Your task to perform on an android device: turn on improve location accuracy Image 0: 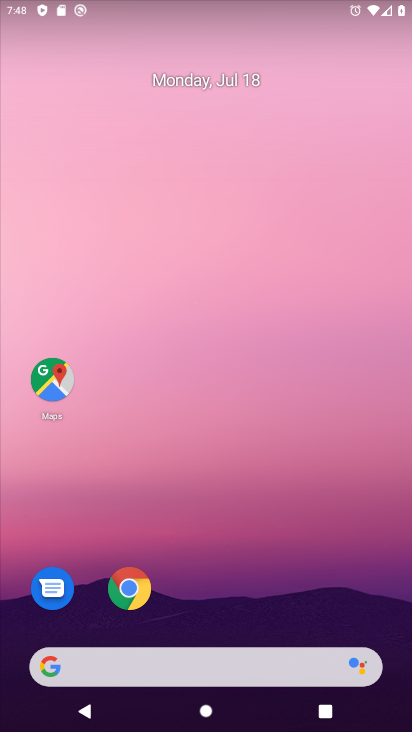
Step 0: drag from (242, 647) to (273, 109)
Your task to perform on an android device: turn on improve location accuracy Image 1: 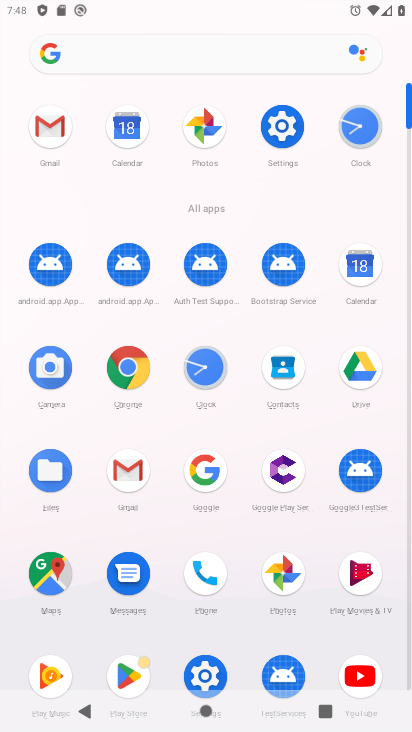
Step 1: click (206, 675)
Your task to perform on an android device: turn on improve location accuracy Image 2: 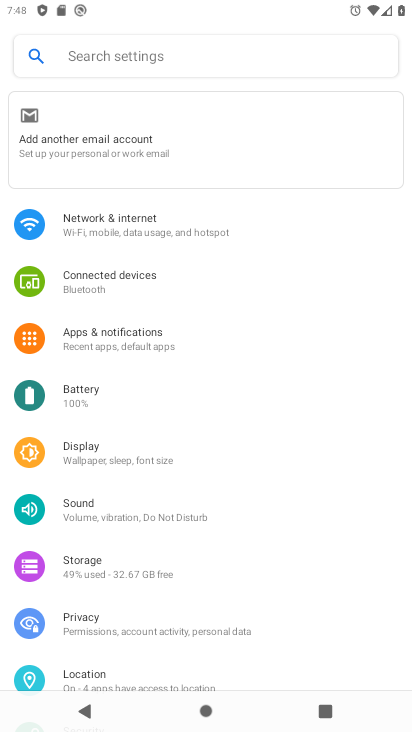
Step 2: click (100, 668)
Your task to perform on an android device: turn on improve location accuracy Image 3: 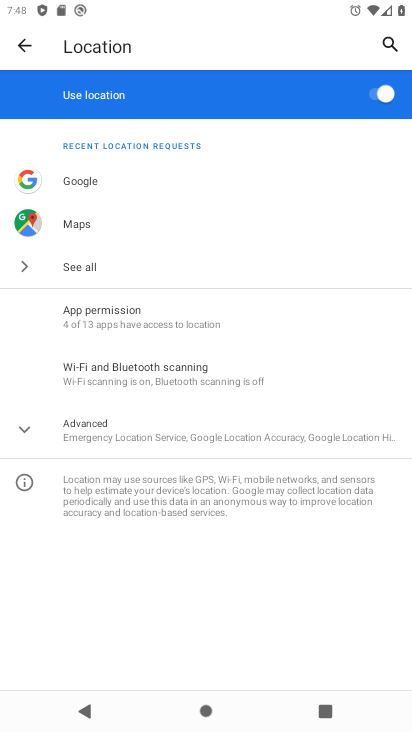
Step 3: click (146, 438)
Your task to perform on an android device: turn on improve location accuracy Image 4: 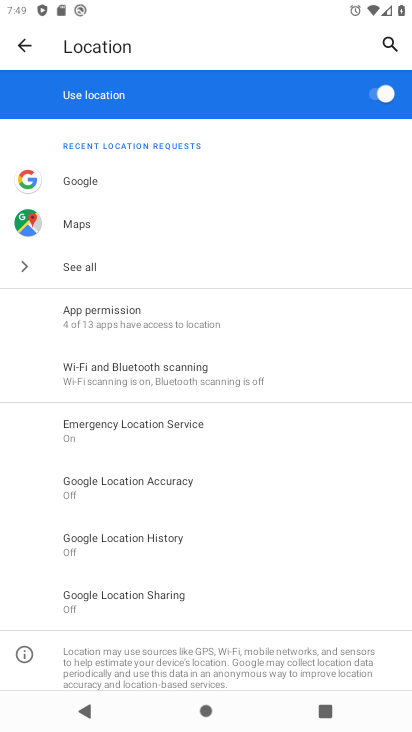
Step 4: click (184, 492)
Your task to perform on an android device: turn on improve location accuracy Image 5: 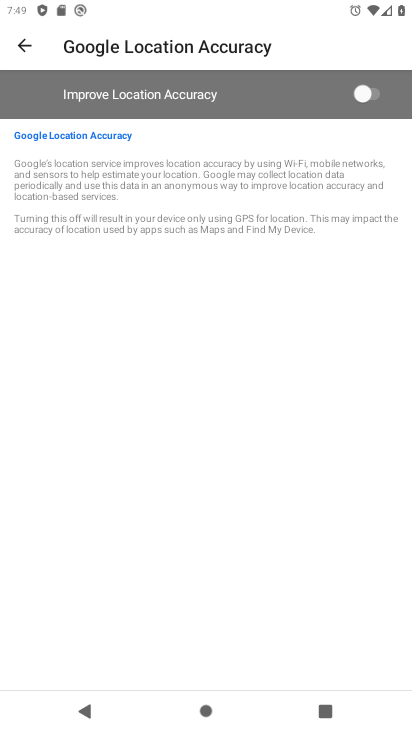
Step 5: click (351, 111)
Your task to perform on an android device: turn on improve location accuracy Image 6: 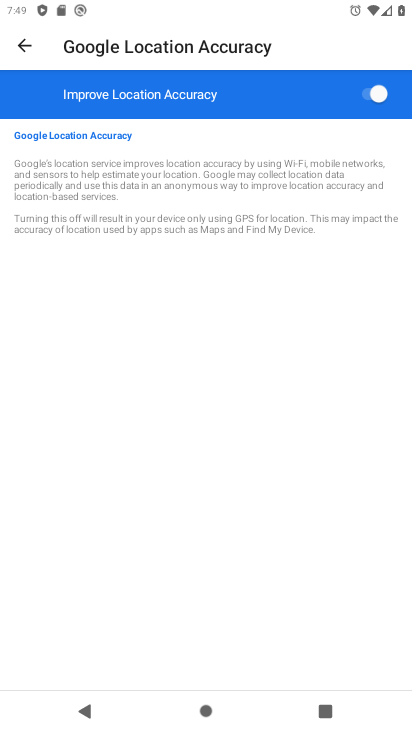
Step 6: task complete